Your task to perform on an android device: Open Youtube and go to "Your channel" Image 0: 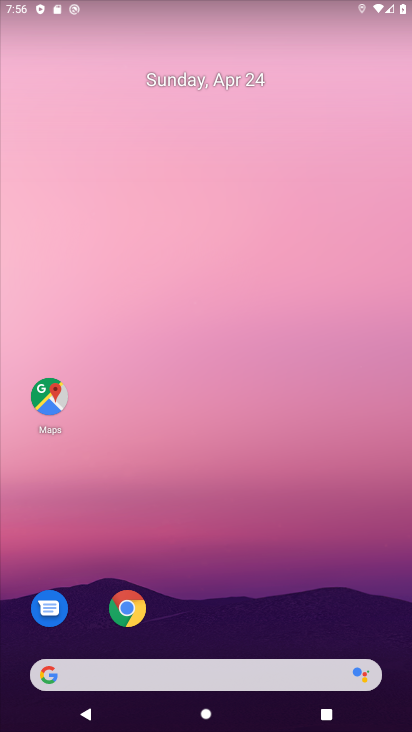
Step 0: drag from (158, 588) to (299, 18)
Your task to perform on an android device: Open Youtube and go to "Your channel" Image 1: 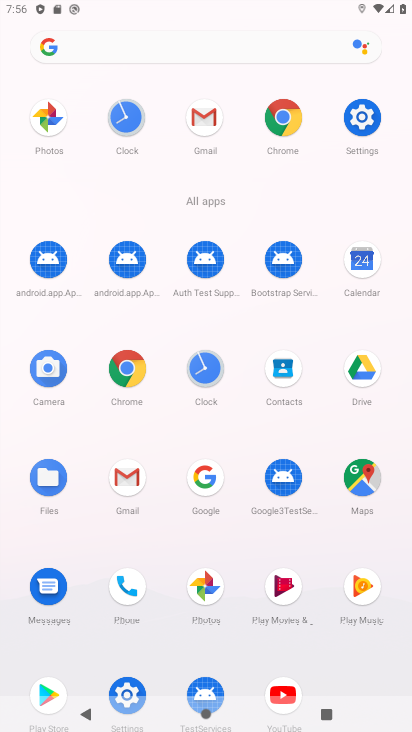
Step 1: click (283, 693)
Your task to perform on an android device: Open Youtube and go to "Your channel" Image 2: 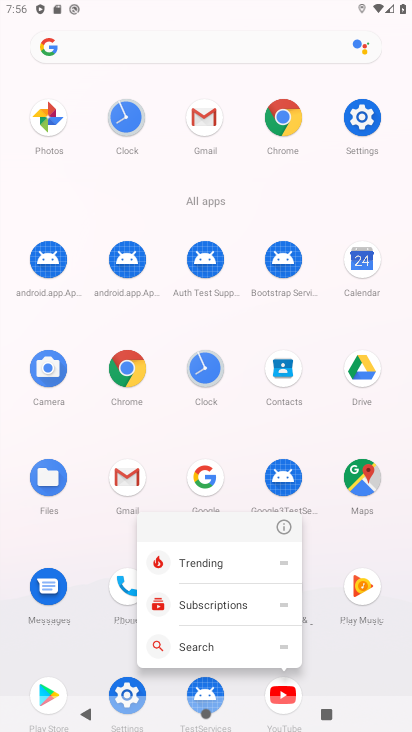
Step 2: click (283, 694)
Your task to perform on an android device: Open Youtube and go to "Your channel" Image 3: 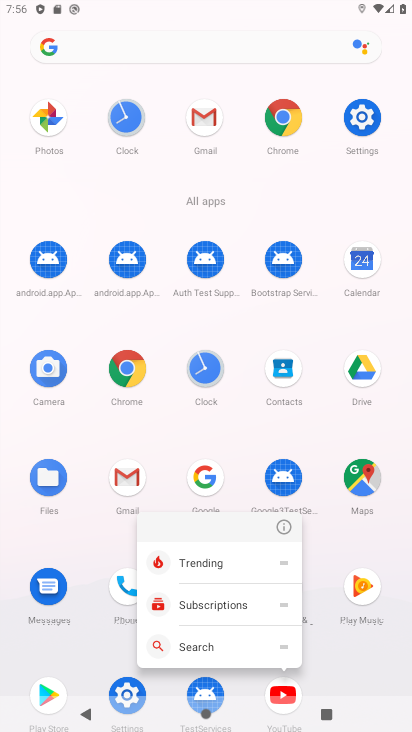
Step 3: click (289, 688)
Your task to perform on an android device: Open Youtube and go to "Your channel" Image 4: 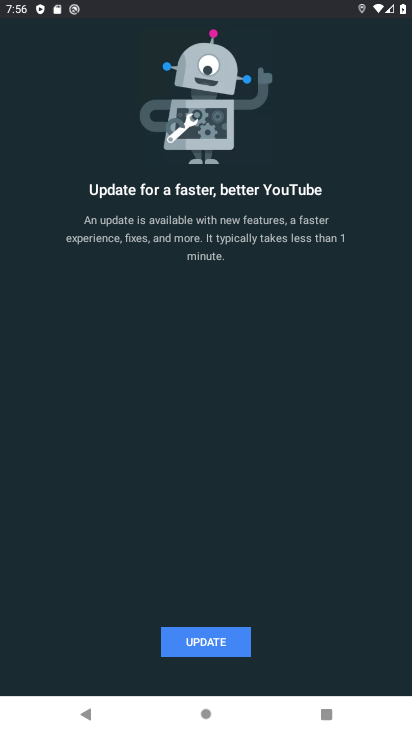
Step 4: click (204, 642)
Your task to perform on an android device: Open Youtube and go to "Your channel" Image 5: 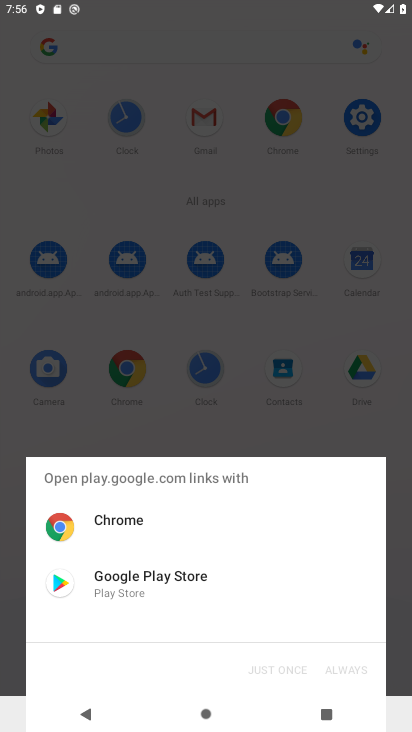
Step 5: click (204, 584)
Your task to perform on an android device: Open Youtube and go to "Your channel" Image 6: 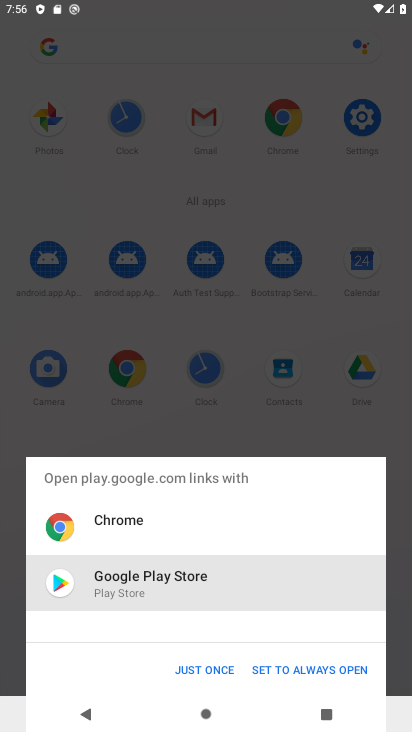
Step 6: click (211, 669)
Your task to perform on an android device: Open Youtube and go to "Your channel" Image 7: 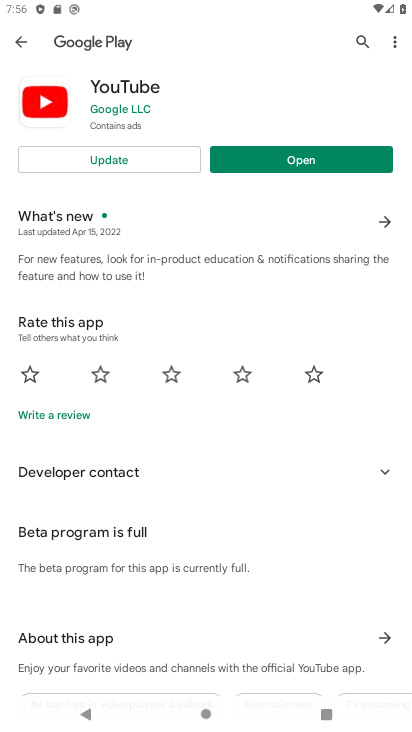
Step 7: click (174, 160)
Your task to perform on an android device: Open Youtube and go to "Your channel" Image 8: 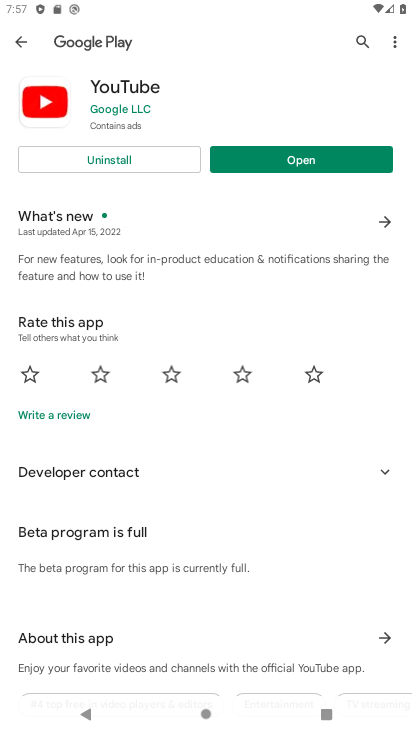
Step 8: click (304, 156)
Your task to perform on an android device: Open Youtube and go to "Your channel" Image 9: 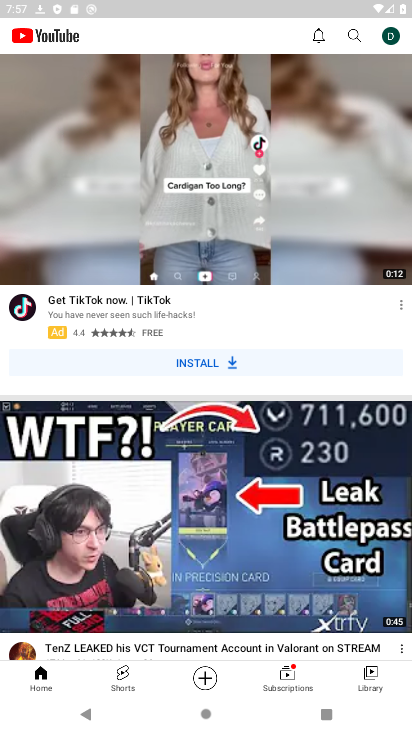
Step 9: click (392, 38)
Your task to perform on an android device: Open Youtube and go to "Your channel" Image 10: 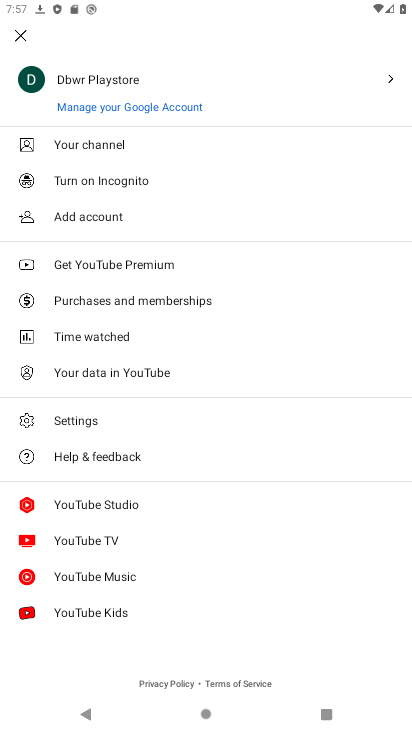
Step 10: click (322, 132)
Your task to perform on an android device: Open Youtube and go to "Your channel" Image 11: 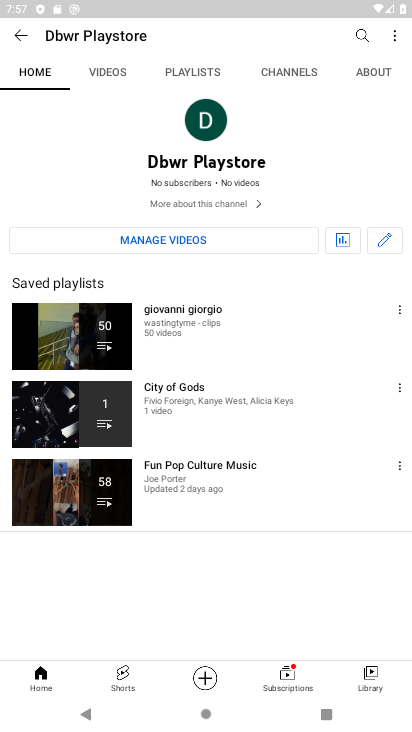
Step 11: task complete